Your task to perform on an android device: open a new tab in the chrome app Image 0: 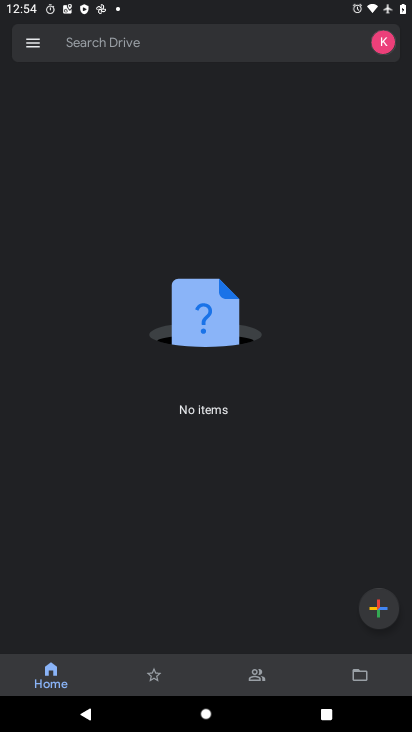
Step 0: press home button
Your task to perform on an android device: open a new tab in the chrome app Image 1: 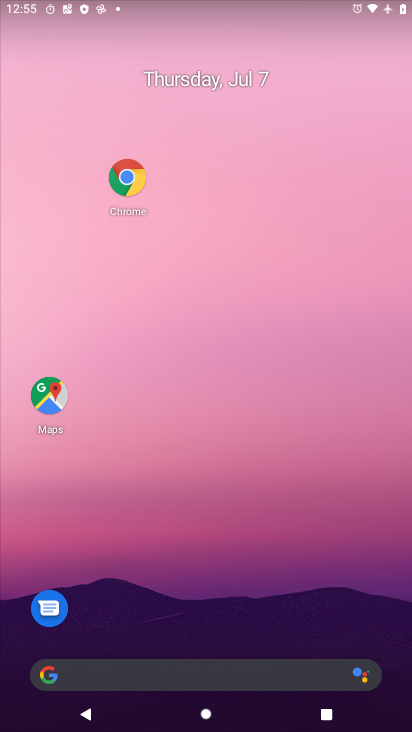
Step 1: click (138, 176)
Your task to perform on an android device: open a new tab in the chrome app Image 2: 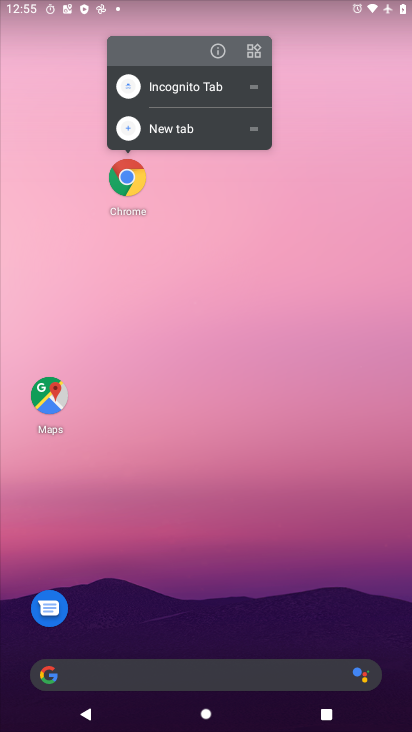
Step 2: click (148, 129)
Your task to perform on an android device: open a new tab in the chrome app Image 3: 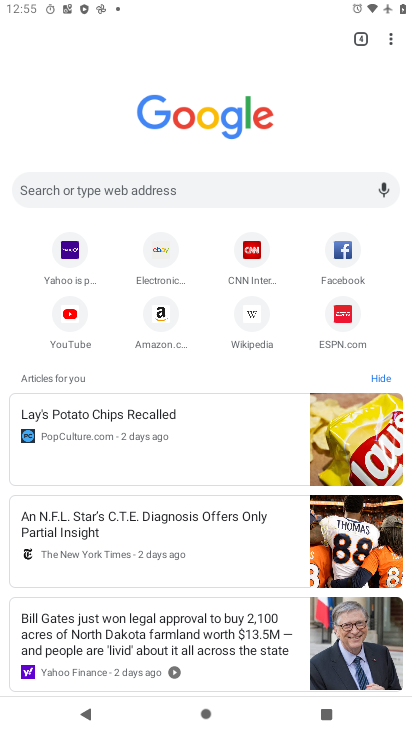
Step 3: task complete